Your task to perform on an android device: Search for sushi restaurants on Maps Image 0: 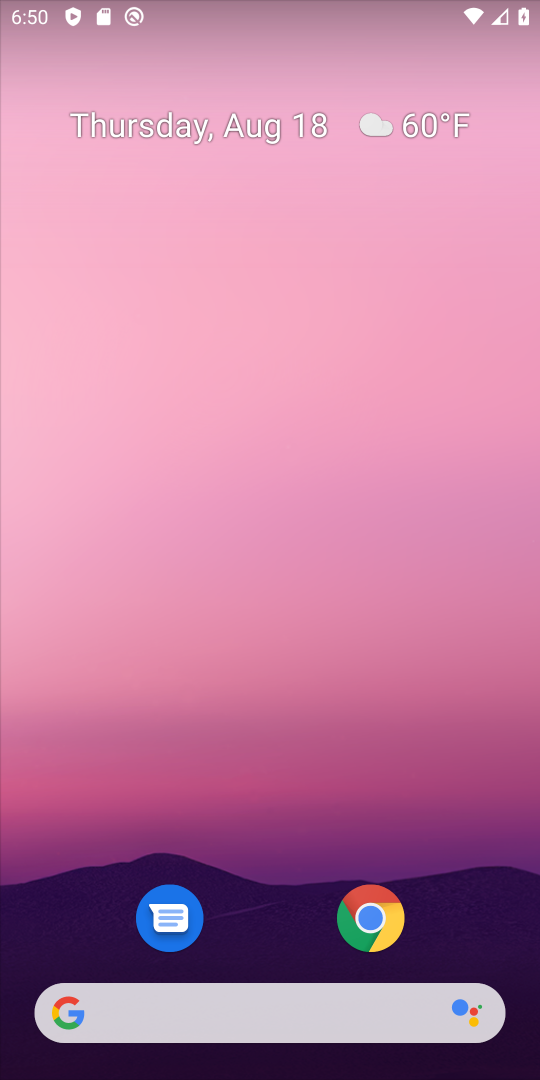
Step 0: press home button
Your task to perform on an android device: Search for sushi restaurants on Maps Image 1: 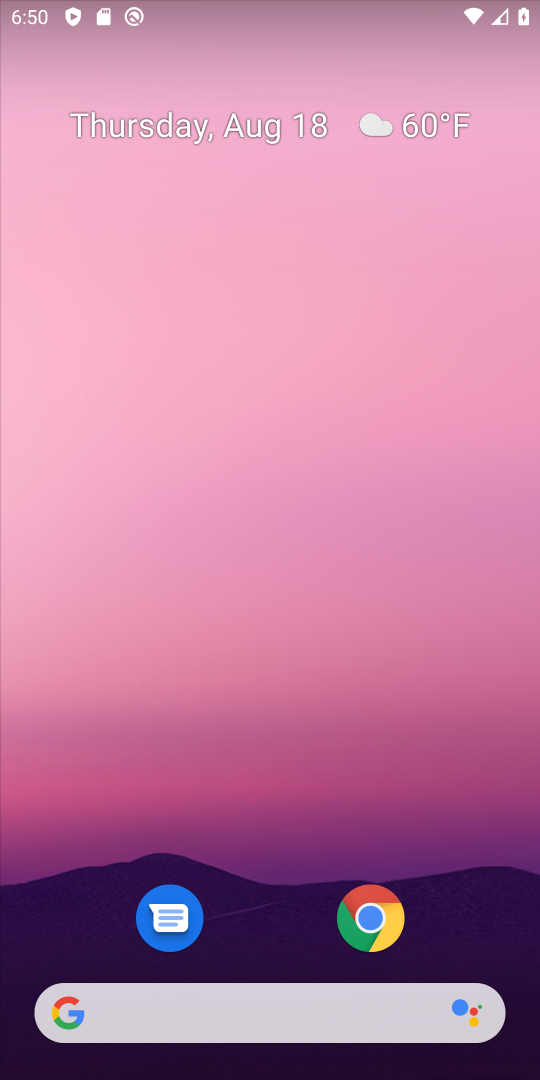
Step 1: drag from (226, 786) to (225, 3)
Your task to perform on an android device: Search for sushi restaurants on Maps Image 2: 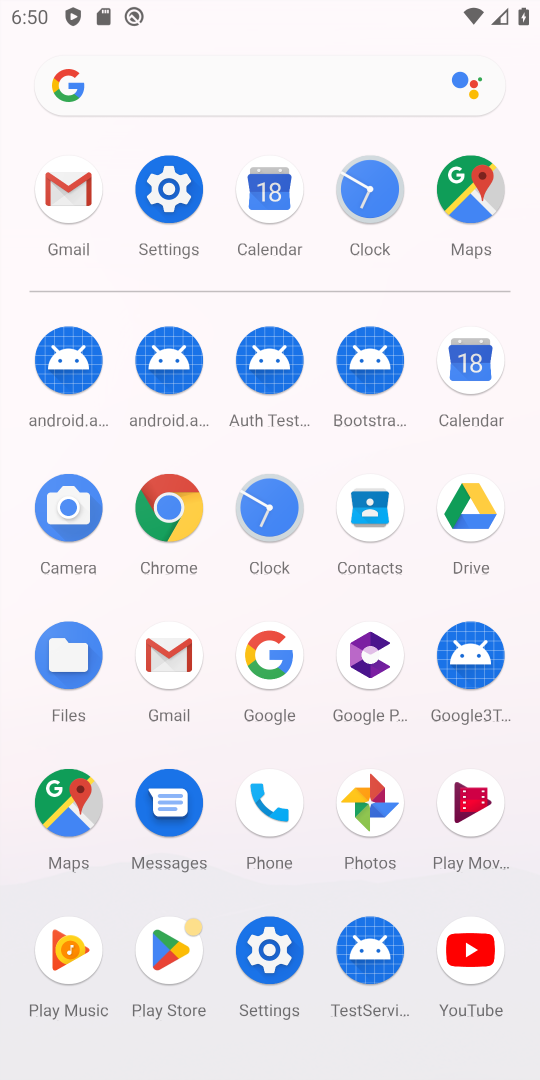
Step 2: click (454, 200)
Your task to perform on an android device: Search for sushi restaurants on Maps Image 3: 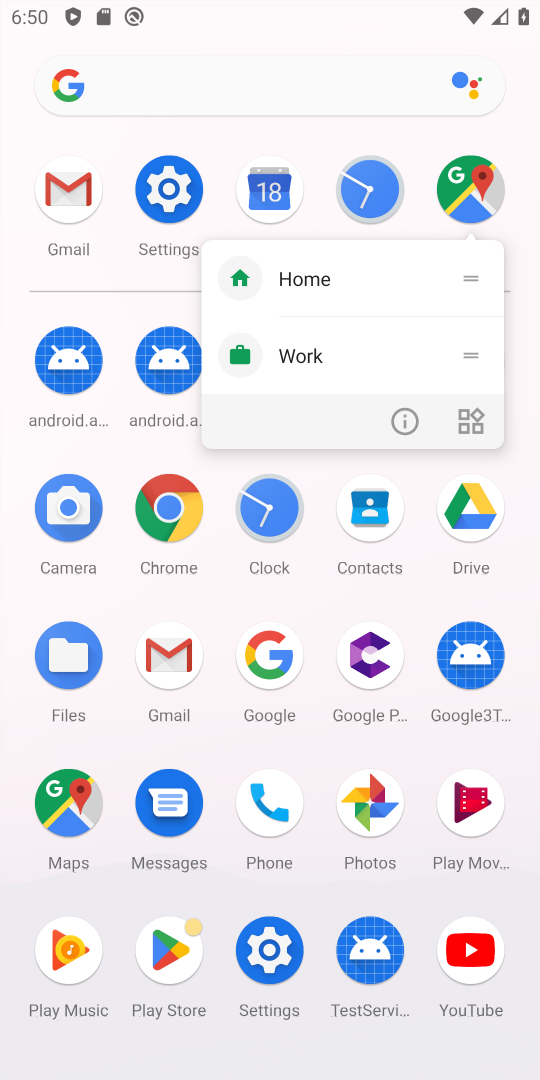
Step 3: click (454, 200)
Your task to perform on an android device: Search for sushi restaurants on Maps Image 4: 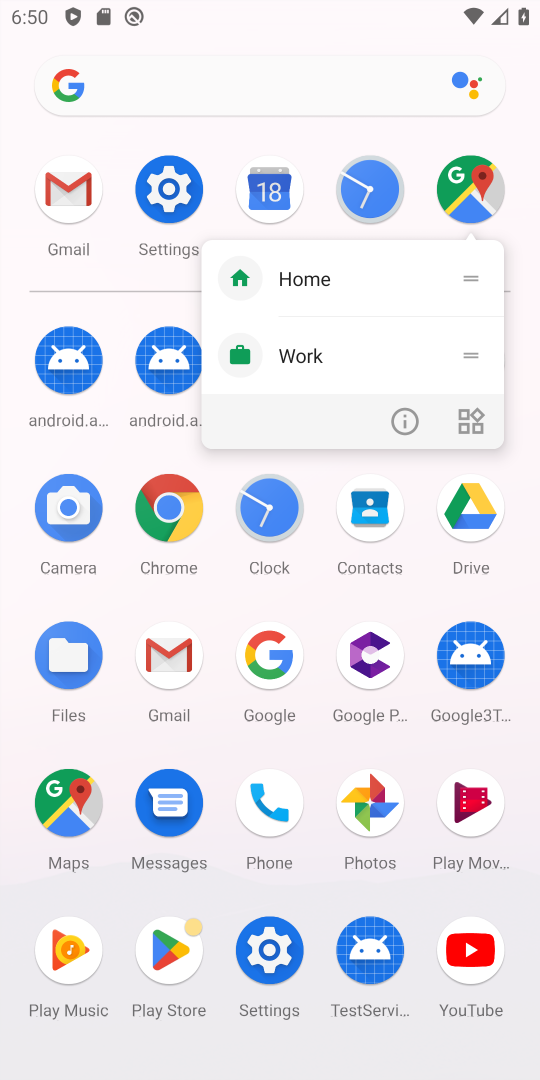
Step 4: click (467, 190)
Your task to perform on an android device: Search for sushi restaurants on Maps Image 5: 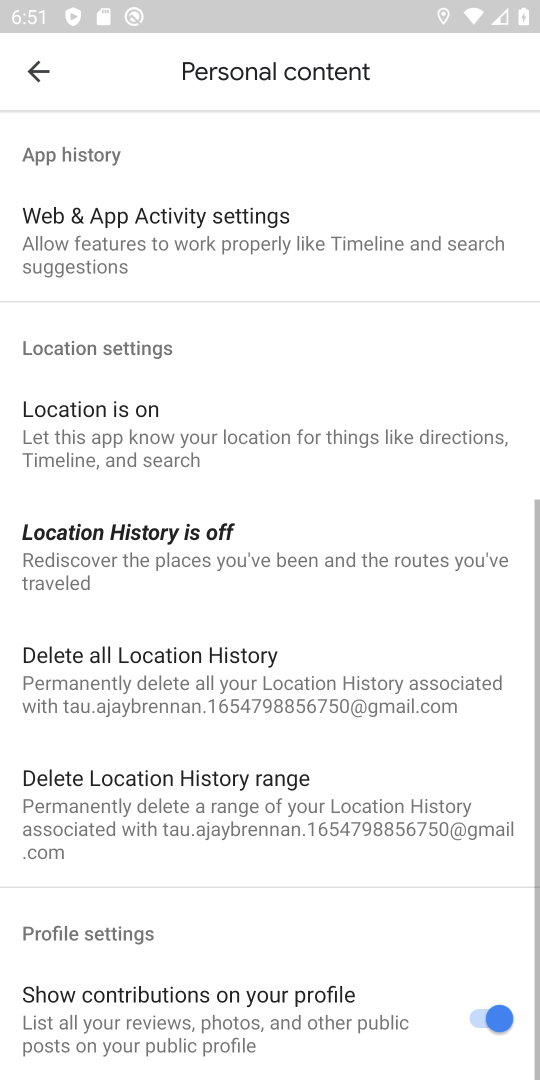
Step 5: press back button
Your task to perform on an android device: Search for sushi restaurants on Maps Image 6: 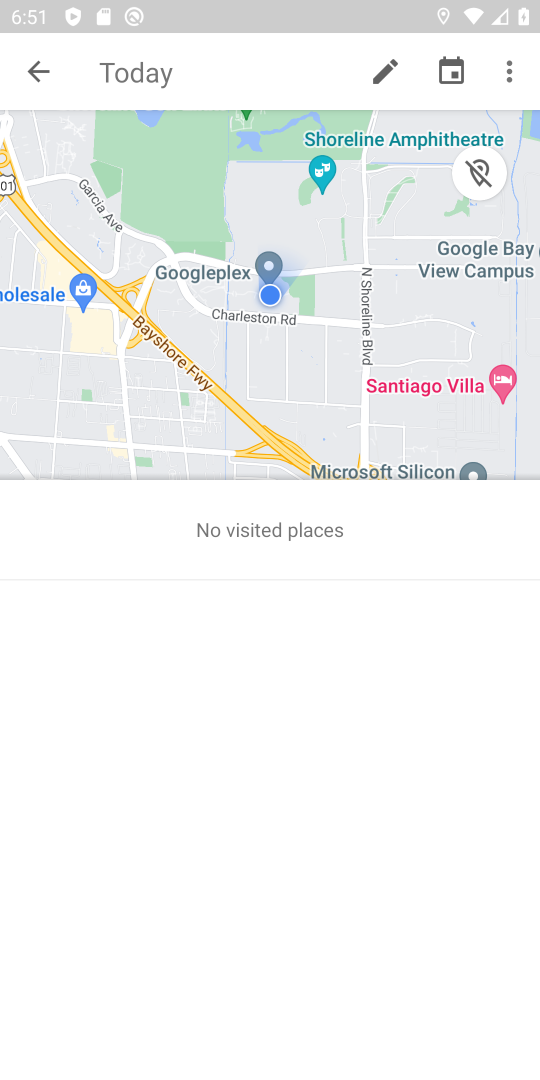
Step 6: press back button
Your task to perform on an android device: Search for sushi restaurants on Maps Image 7: 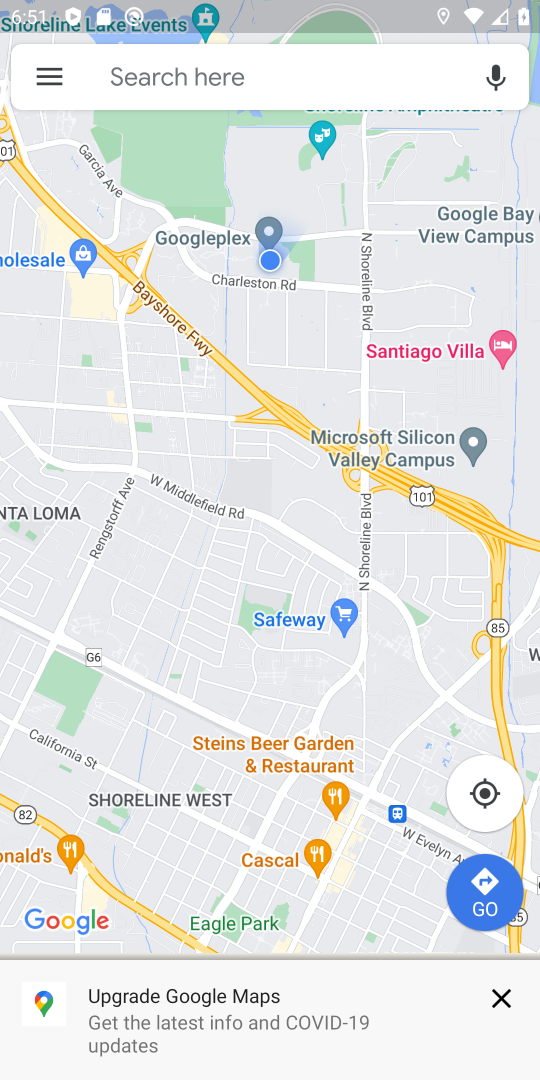
Step 7: click (206, 77)
Your task to perform on an android device: Search for sushi restaurants on Maps Image 8: 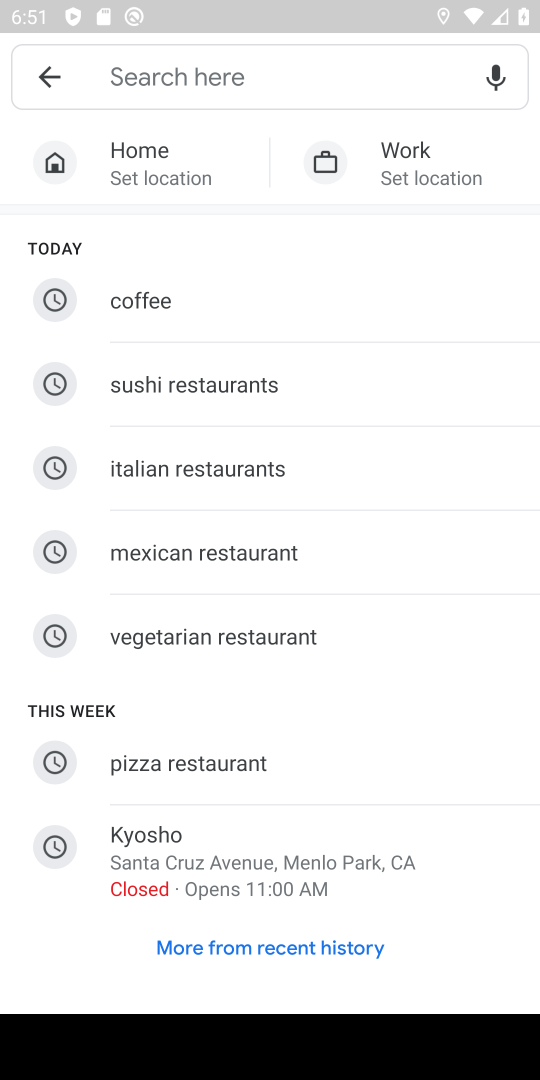
Step 8: click (193, 395)
Your task to perform on an android device: Search for sushi restaurants on Maps Image 9: 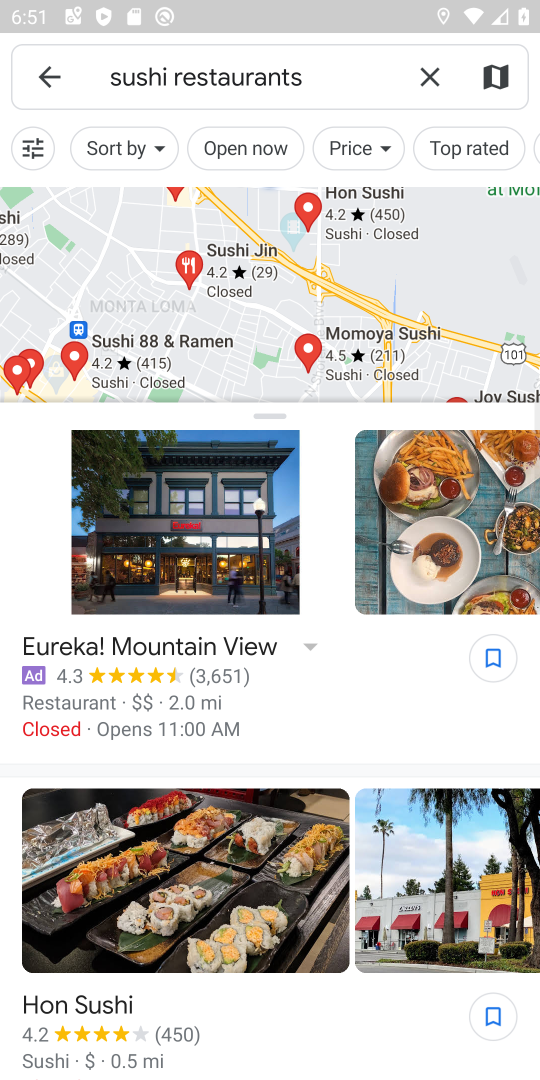
Step 9: task complete